Your task to perform on an android device: Go to Amazon Image 0: 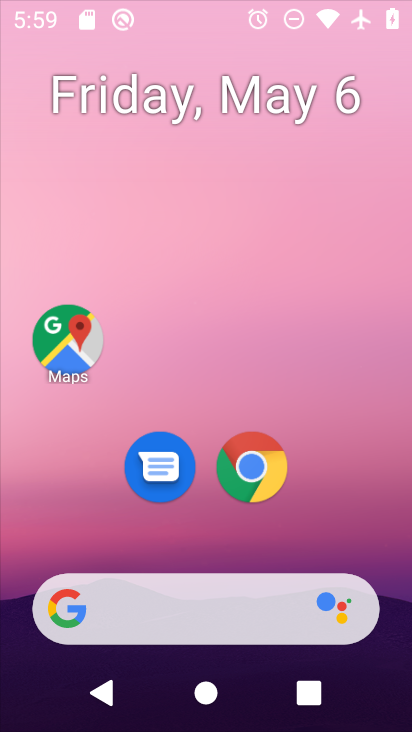
Step 0: drag from (313, 293) to (309, 220)
Your task to perform on an android device: Go to Amazon Image 1: 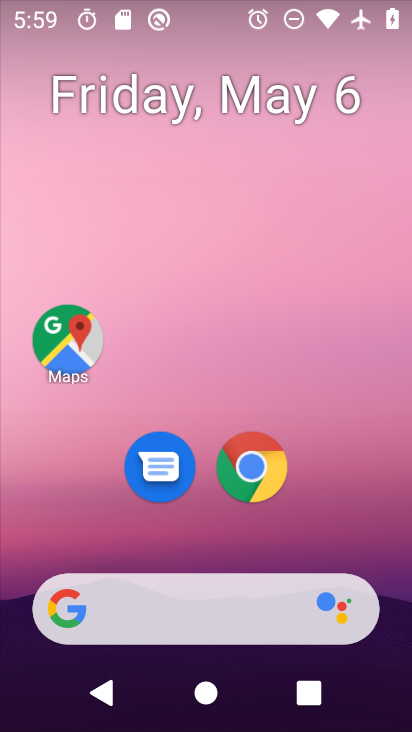
Step 1: drag from (349, 541) to (282, 175)
Your task to perform on an android device: Go to Amazon Image 2: 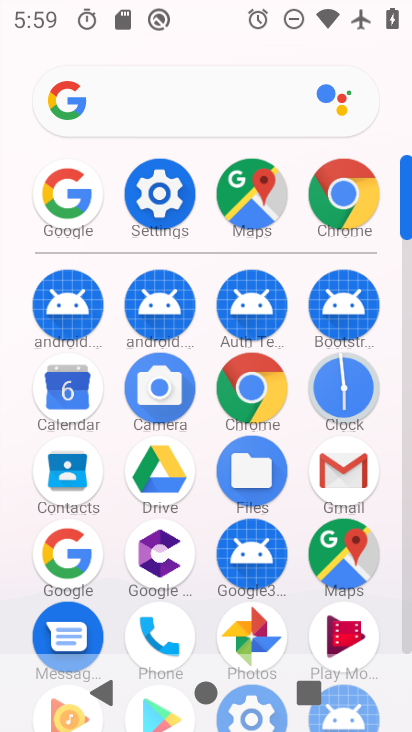
Step 2: click (318, 227)
Your task to perform on an android device: Go to Amazon Image 3: 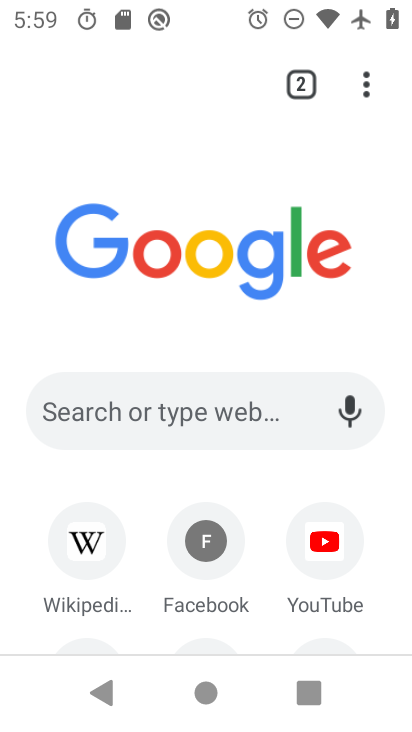
Step 3: drag from (250, 598) to (307, 265)
Your task to perform on an android device: Go to Amazon Image 4: 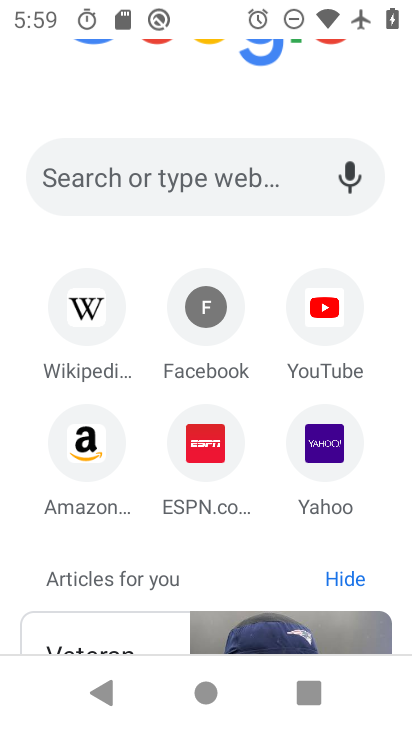
Step 4: click (93, 466)
Your task to perform on an android device: Go to Amazon Image 5: 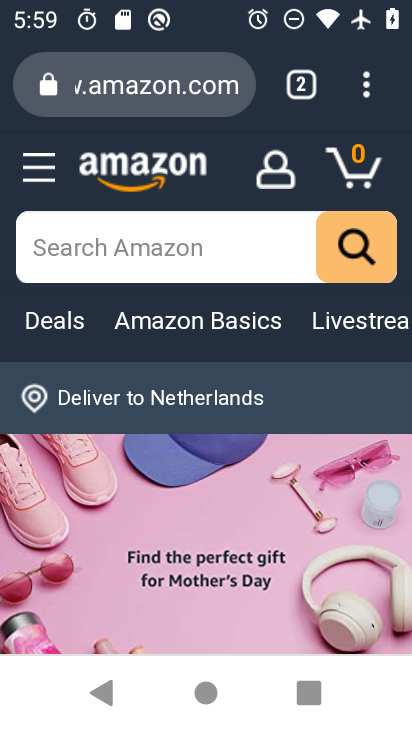
Step 5: task complete